Your task to perform on an android device: Open notification settings Image 0: 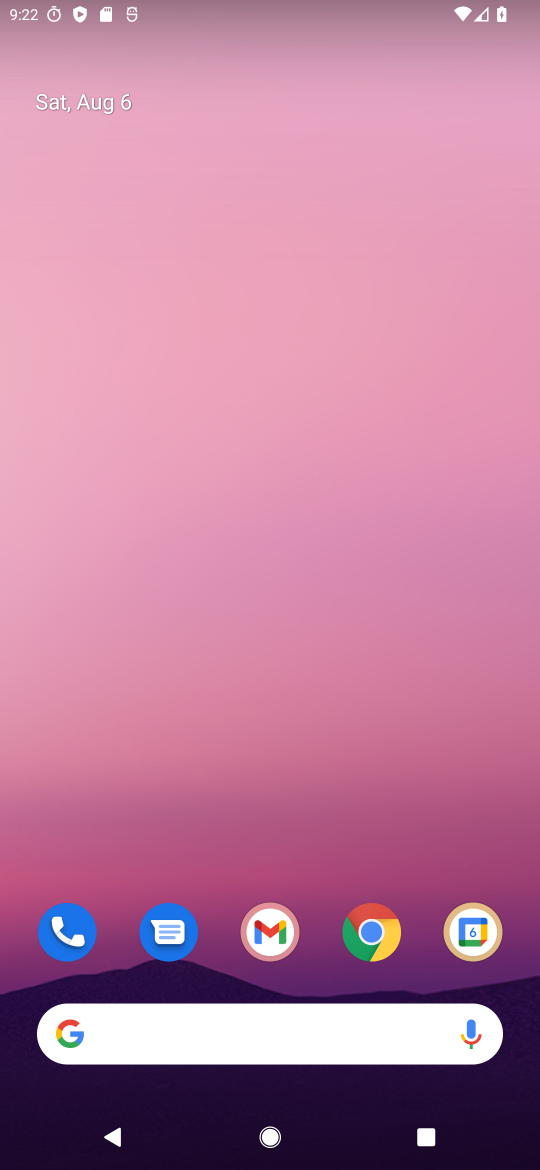
Step 0: drag from (282, 1026) to (287, 332)
Your task to perform on an android device: Open notification settings Image 1: 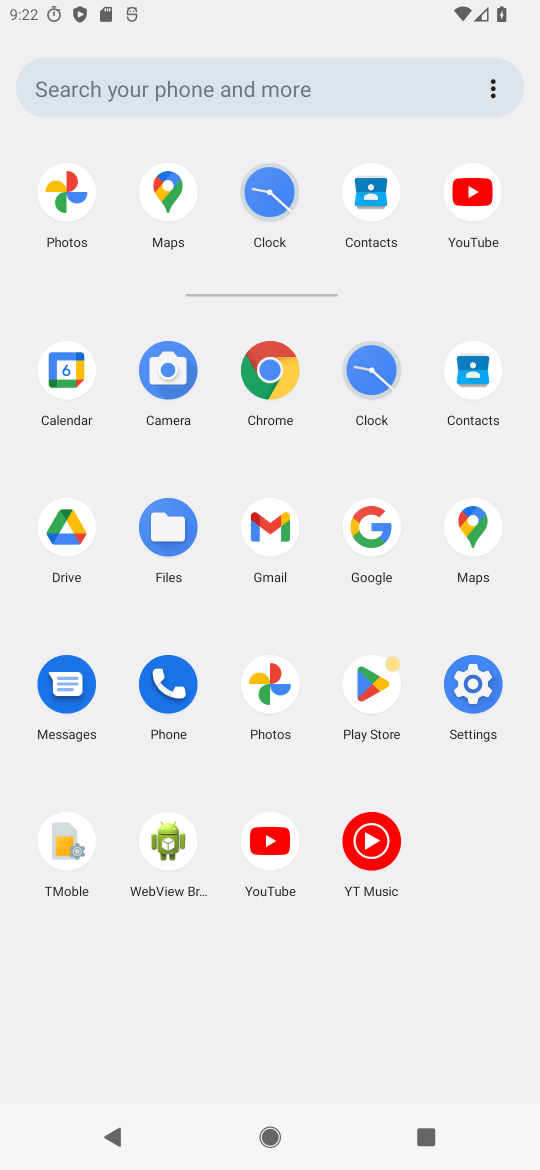
Step 1: click (476, 679)
Your task to perform on an android device: Open notification settings Image 2: 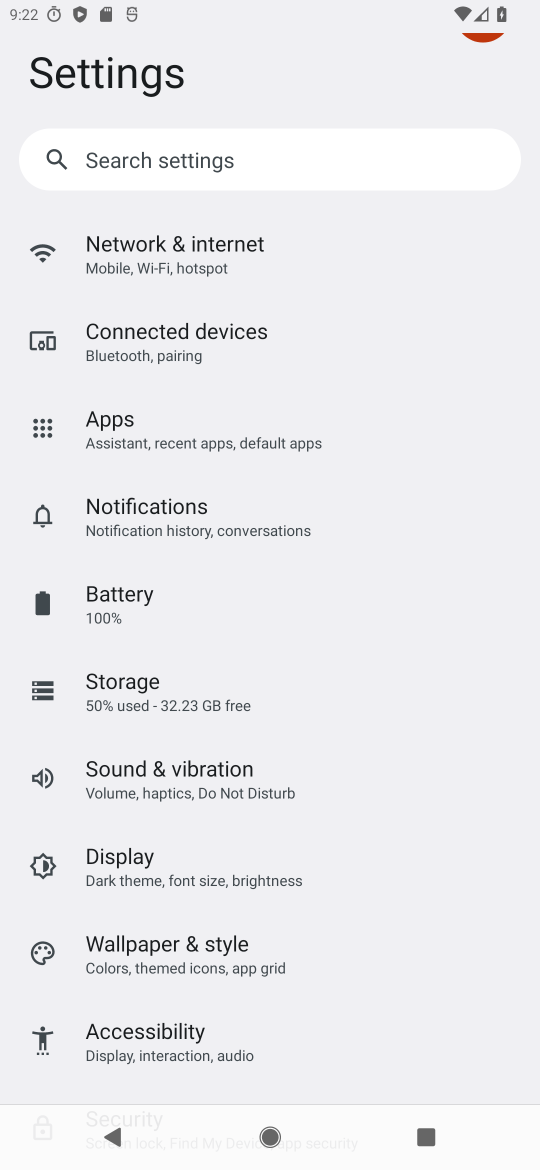
Step 2: click (155, 520)
Your task to perform on an android device: Open notification settings Image 3: 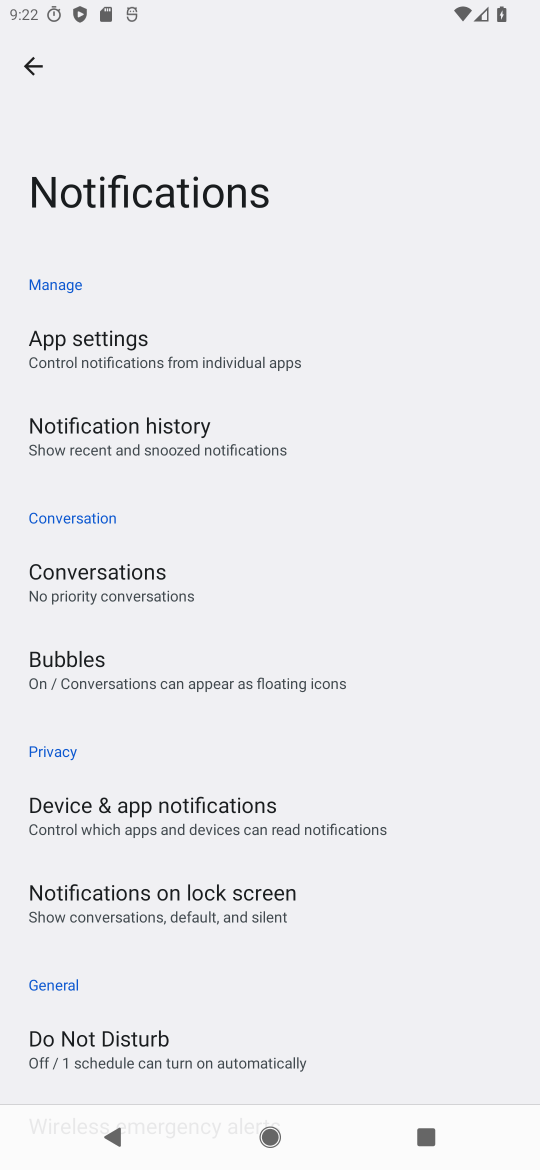
Step 3: task complete